Your task to perform on an android device: toggle translation in the chrome app Image 0: 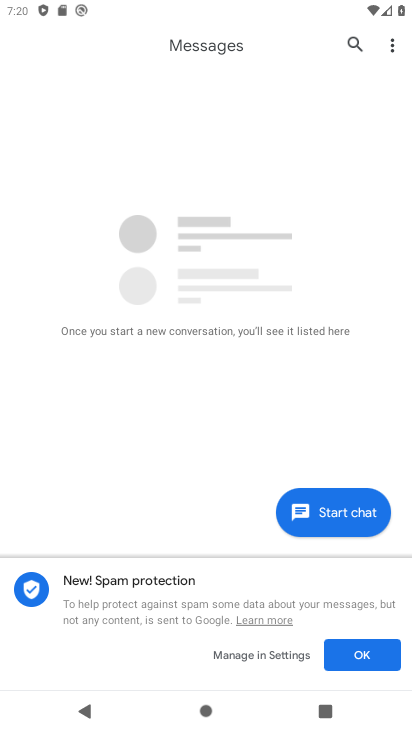
Step 0: press home button
Your task to perform on an android device: toggle translation in the chrome app Image 1: 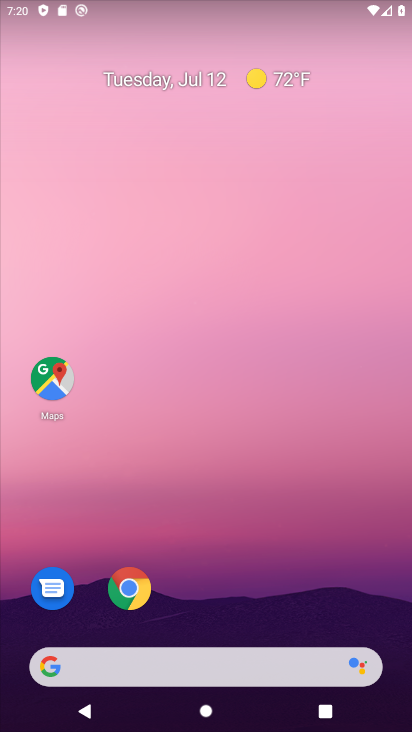
Step 1: drag from (206, 618) to (367, 23)
Your task to perform on an android device: toggle translation in the chrome app Image 2: 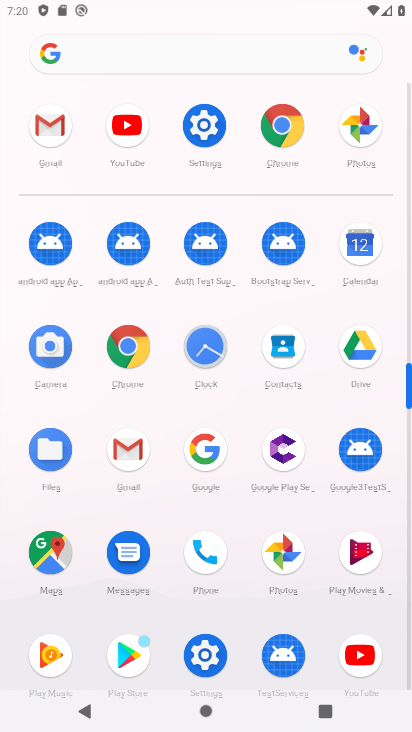
Step 2: click (281, 124)
Your task to perform on an android device: toggle translation in the chrome app Image 3: 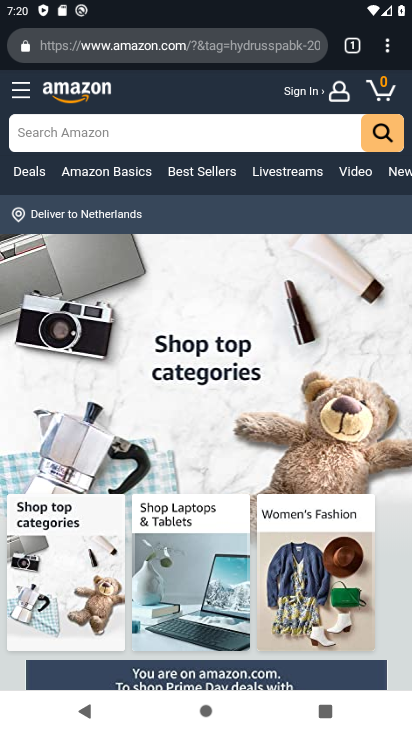
Step 3: drag from (376, 38) to (232, 554)
Your task to perform on an android device: toggle translation in the chrome app Image 4: 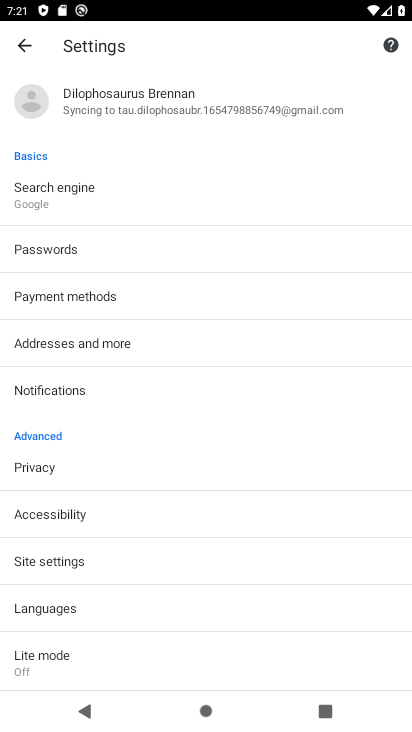
Step 4: drag from (129, 587) to (184, 119)
Your task to perform on an android device: toggle translation in the chrome app Image 5: 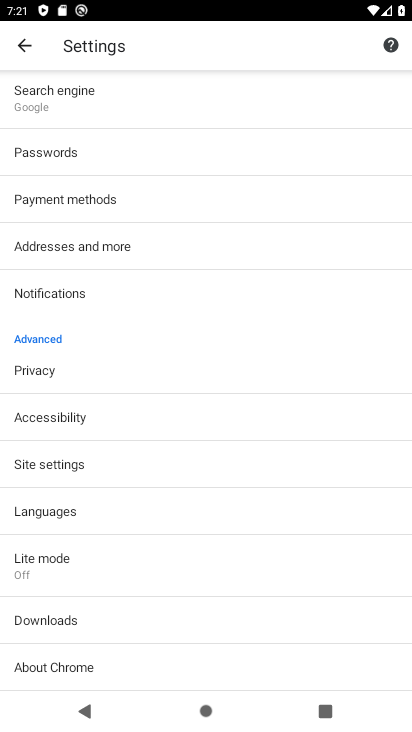
Step 5: click (45, 510)
Your task to perform on an android device: toggle translation in the chrome app Image 6: 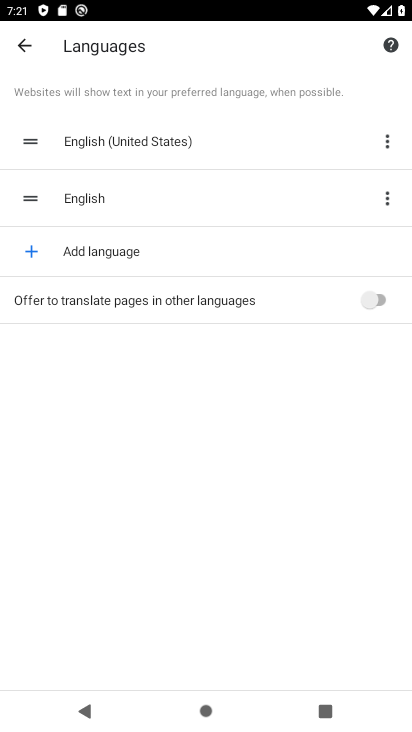
Step 6: click (371, 308)
Your task to perform on an android device: toggle translation in the chrome app Image 7: 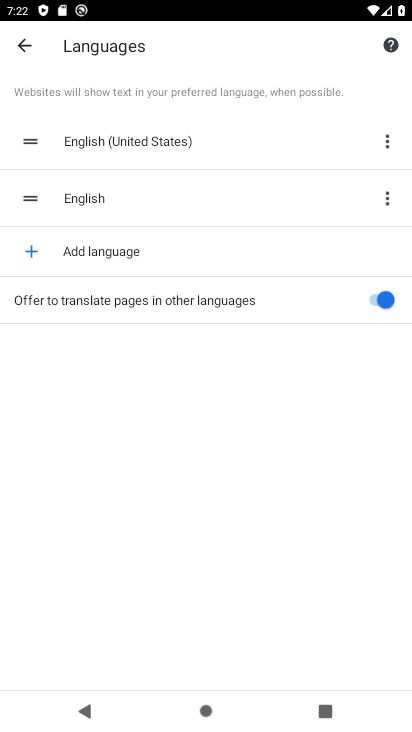
Step 7: task complete